Your task to perform on an android device: empty trash in the gmail app Image 0: 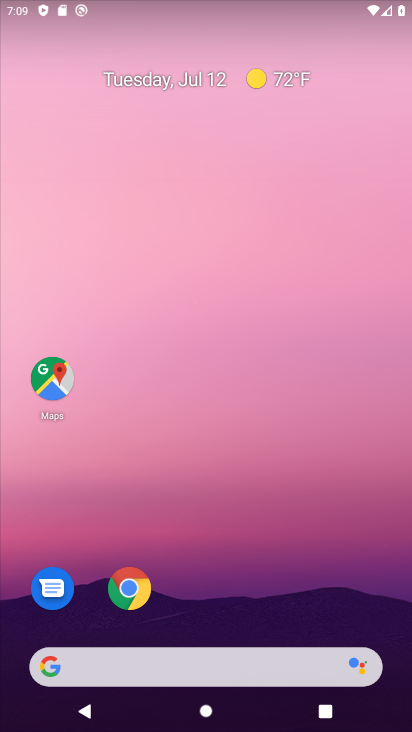
Step 0: drag from (278, 573) to (319, 198)
Your task to perform on an android device: empty trash in the gmail app Image 1: 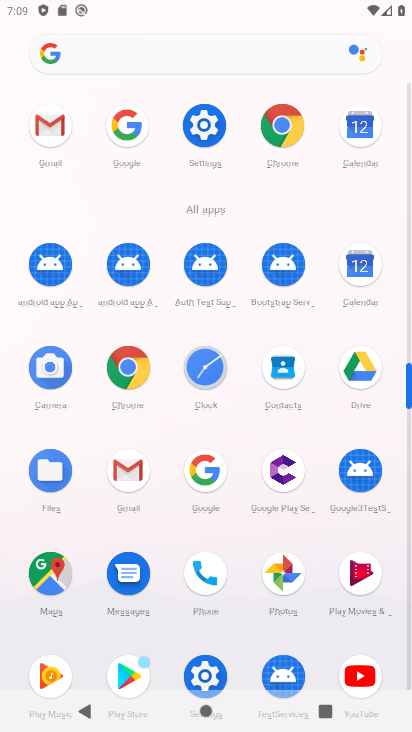
Step 1: click (59, 122)
Your task to perform on an android device: empty trash in the gmail app Image 2: 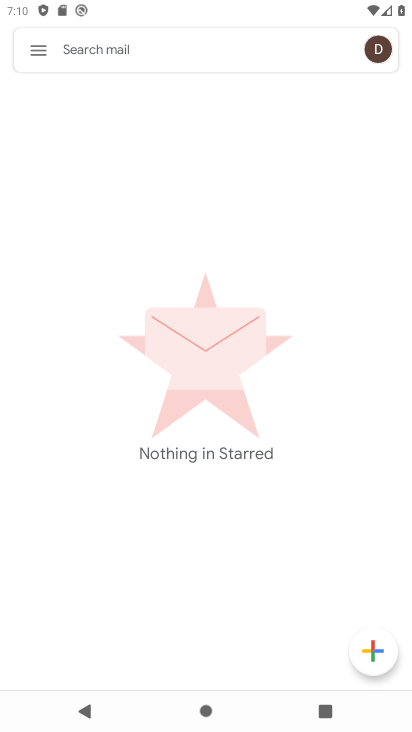
Step 2: click (34, 57)
Your task to perform on an android device: empty trash in the gmail app Image 3: 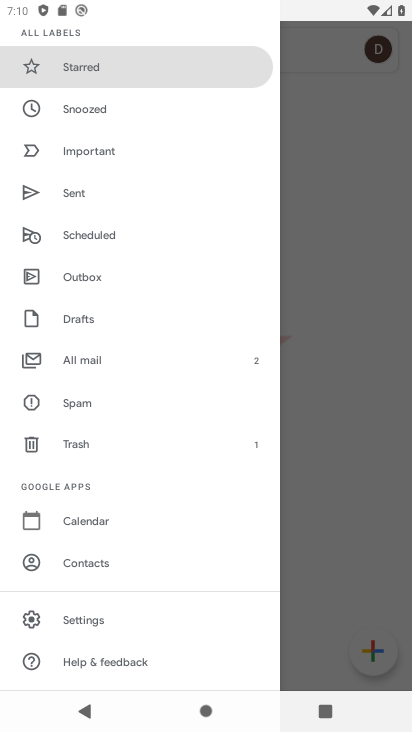
Step 3: click (81, 444)
Your task to perform on an android device: empty trash in the gmail app Image 4: 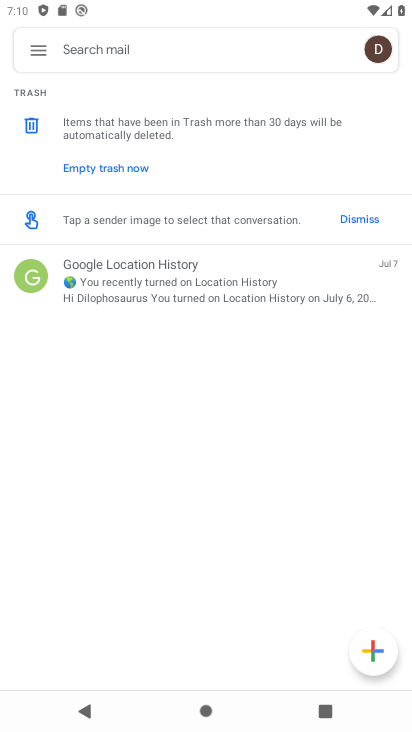
Step 4: click (112, 164)
Your task to perform on an android device: empty trash in the gmail app Image 5: 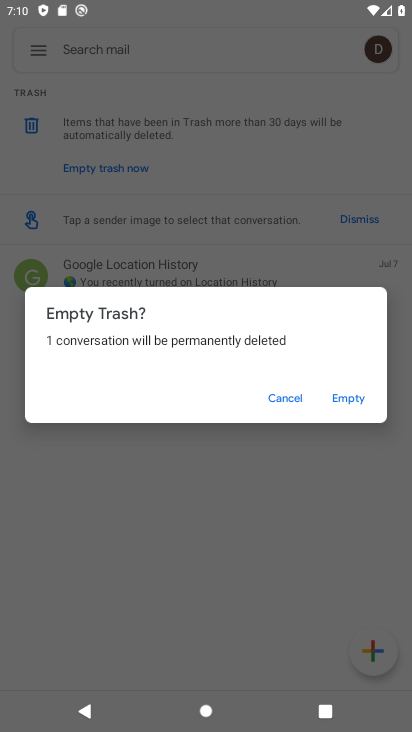
Step 5: click (342, 397)
Your task to perform on an android device: empty trash in the gmail app Image 6: 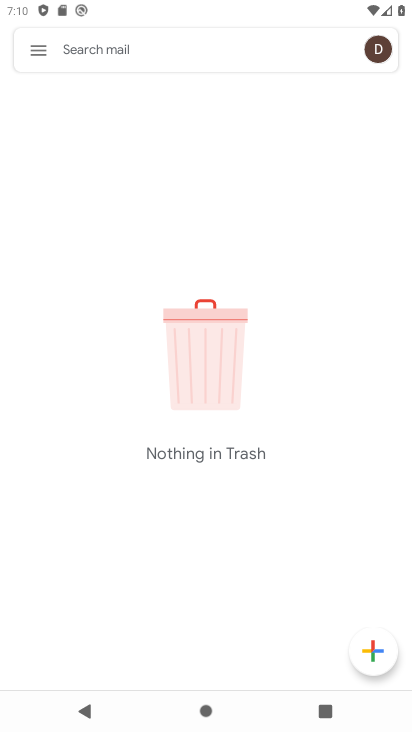
Step 6: task complete